Your task to perform on an android device: Open Google Maps and go to "Timeline" Image 0: 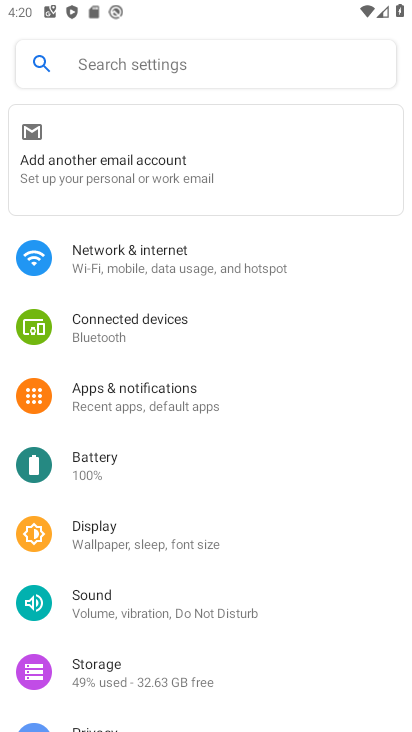
Step 0: press home button
Your task to perform on an android device: Open Google Maps and go to "Timeline" Image 1: 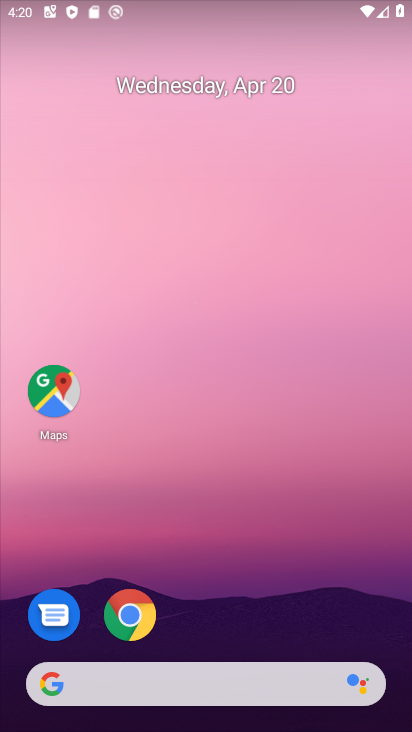
Step 1: click (69, 386)
Your task to perform on an android device: Open Google Maps and go to "Timeline" Image 2: 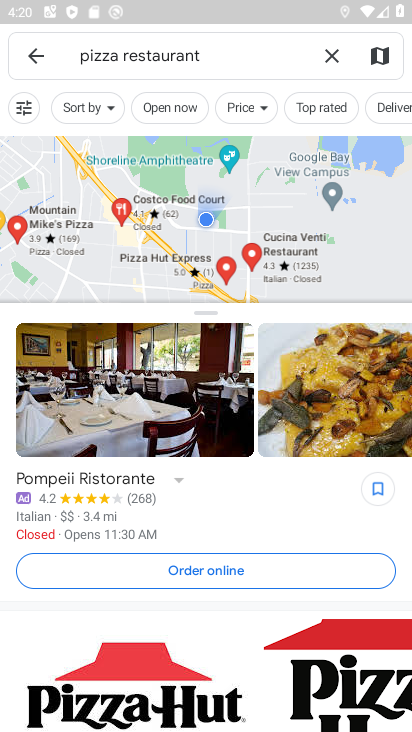
Step 2: click (31, 53)
Your task to perform on an android device: Open Google Maps and go to "Timeline" Image 3: 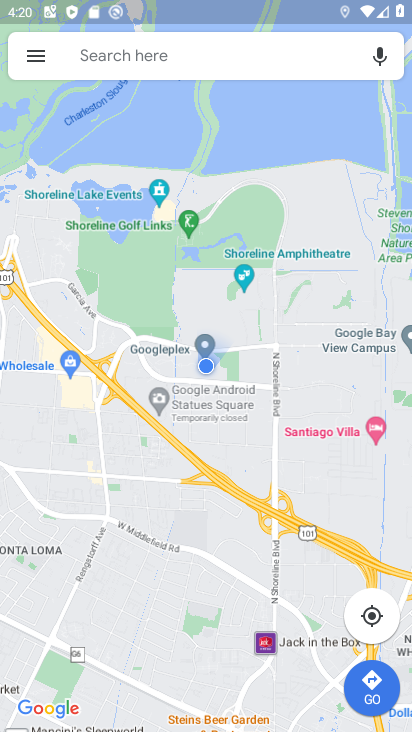
Step 3: click (19, 61)
Your task to perform on an android device: Open Google Maps and go to "Timeline" Image 4: 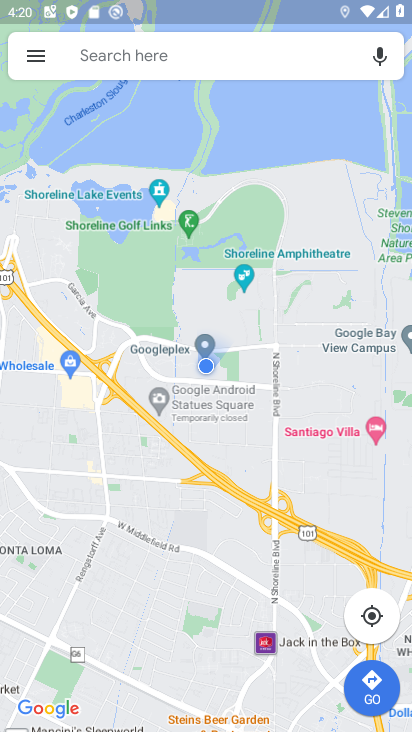
Step 4: click (35, 59)
Your task to perform on an android device: Open Google Maps and go to "Timeline" Image 5: 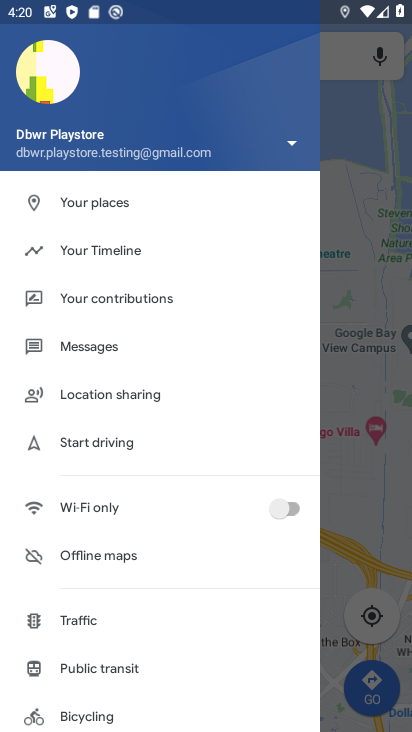
Step 5: click (107, 254)
Your task to perform on an android device: Open Google Maps and go to "Timeline" Image 6: 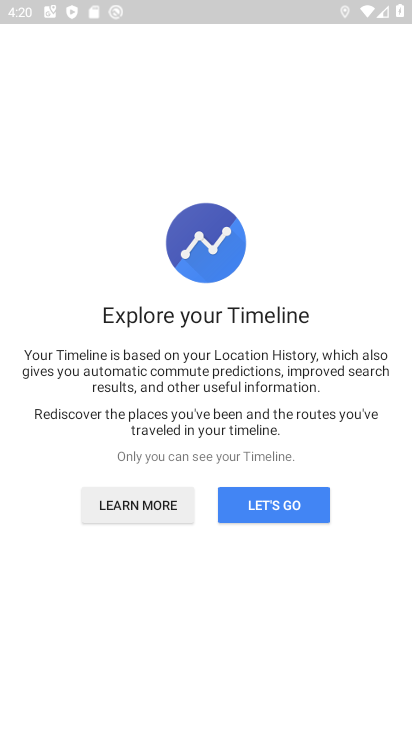
Step 6: click (280, 509)
Your task to perform on an android device: Open Google Maps and go to "Timeline" Image 7: 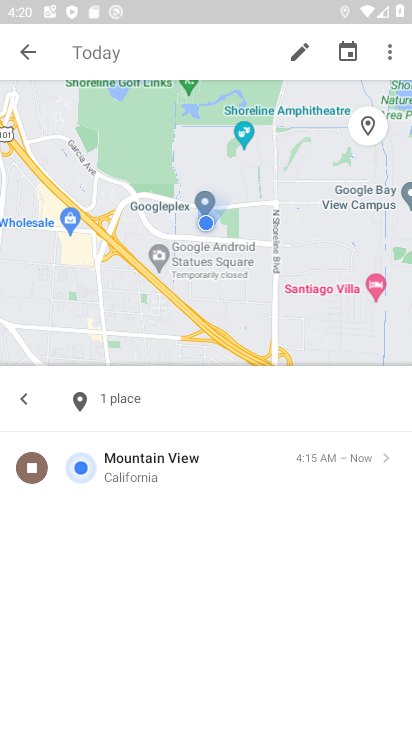
Step 7: task complete